Your task to perform on an android device: find which apps use the phone's location Image 0: 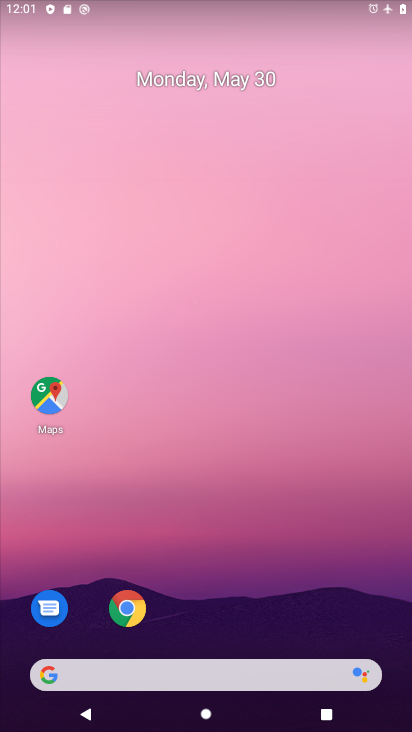
Step 0: click (161, 218)
Your task to perform on an android device: find which apps use the phone's location Image 1: 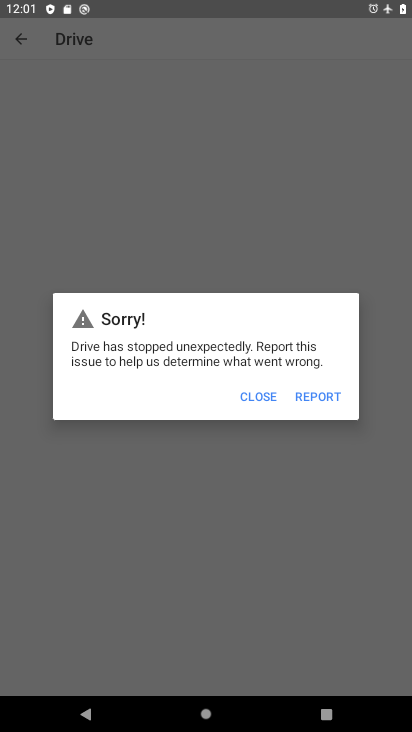
Step 1: press home button
Your task to perform on an android device: find which apps use the phone's location Image 2: 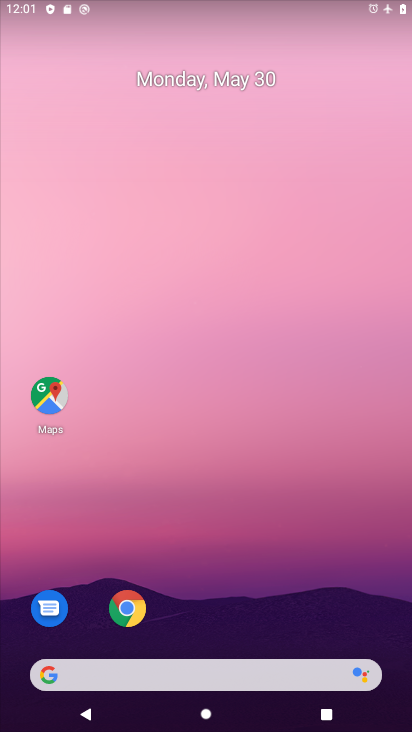
Step 2: drag from (143, 644) to (63, 22)
Your task to perform on an android device: find which apps use the phone's location Image 3: 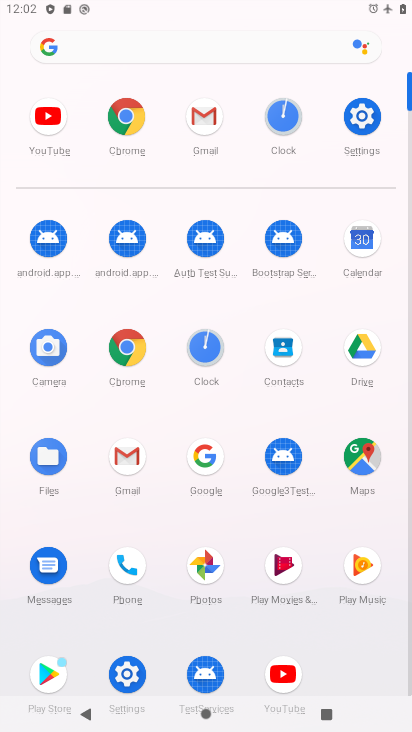
Step 3: click (124, 673)
Your task to perform on an android device: find which apps use the phone's location Image 4: 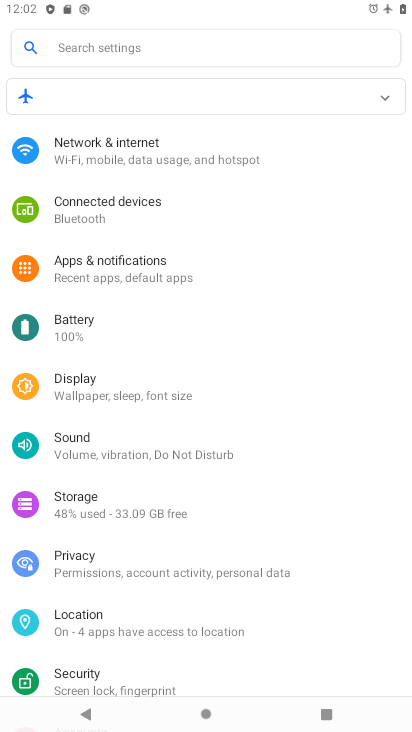
Step 4: click (97, 615)
Your task to perform on an android device: find which apps use the phone's location Image 5: 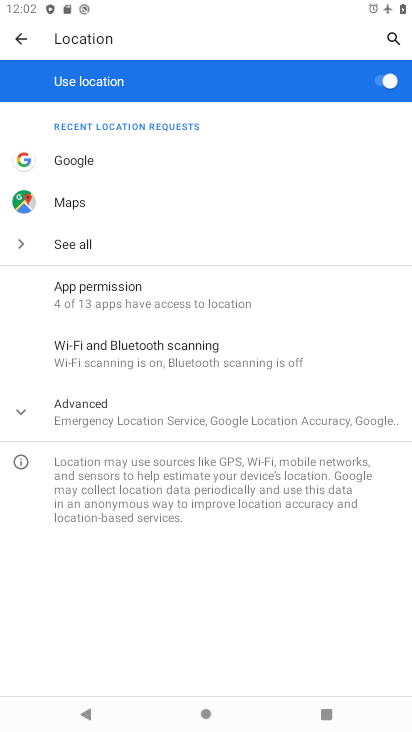
Step 5: click (89, 281)
Your task to perform on an android device: find which apps use the phone's location Image 6: 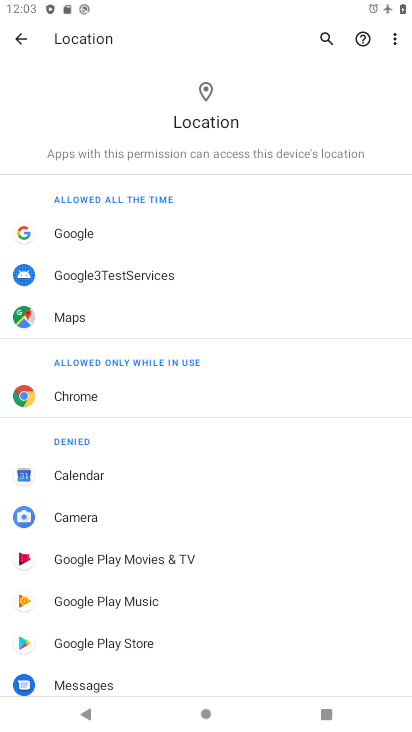
Step 6: task complete